Your task to perform on an android device: move an email to a new category in the gmail app Image 0: 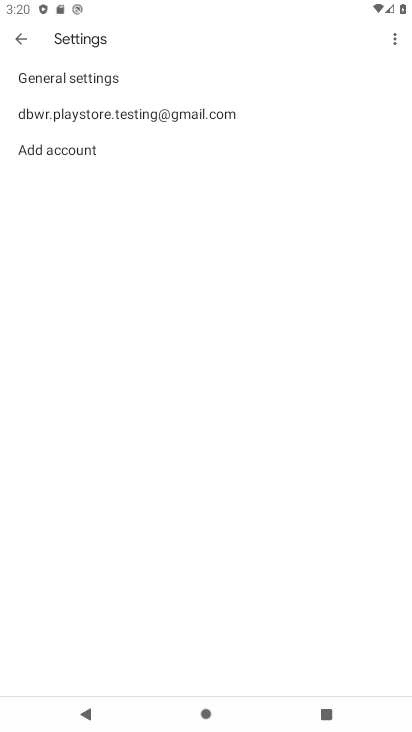
Step 0: click (32, 45)
Your task to perform on an android device: move an email to a new category in the gmail app Image 1: 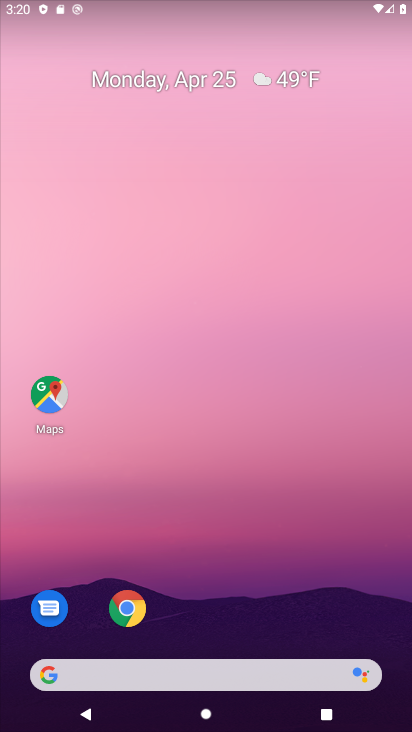
Step 1: drag from (173, 655) to (396, 8)
Your task to perform on an android device: move an email to a new category in the gmail app Image 2: 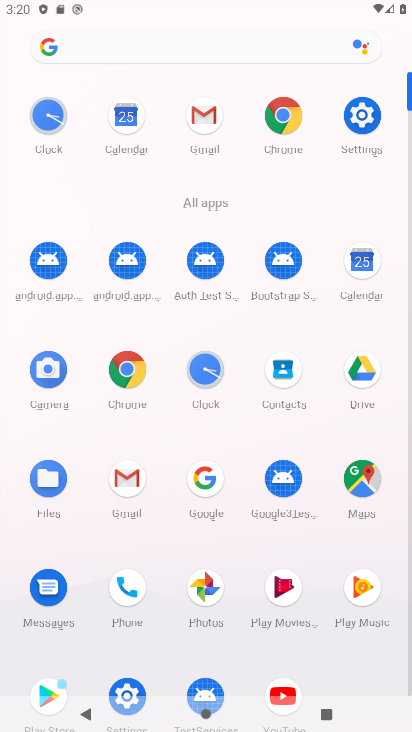
Step 2: click (129, 482)
Your task to perform on an android device: move an email to a new category in the gmail app Image 3: 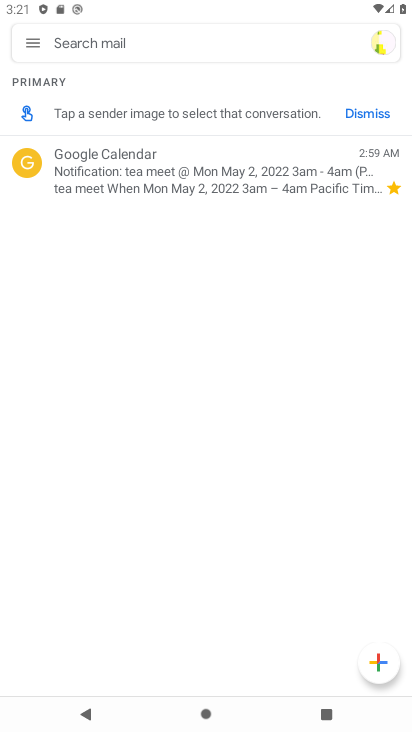
Step 3: click (34, 154)
Your task to perform on an android device: move an email to a new category in the gmail app Image 4: 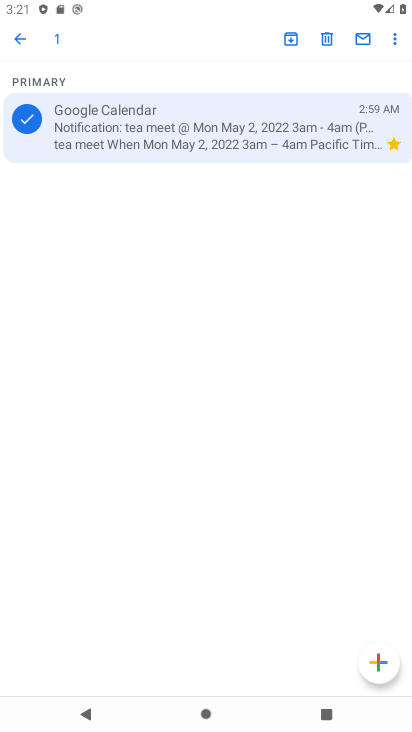
Step 4: click (392, 44)
Your task to perform on an android device: move an email to a new category in the gmail app Image 5: 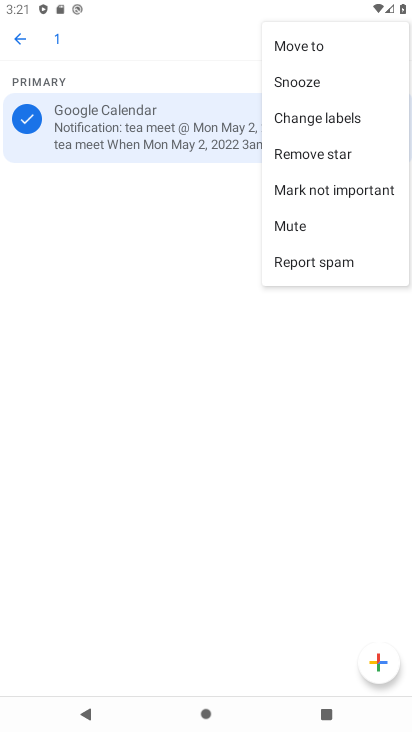
Step 5: click (309, 54)
Your task to perform on an android device: move an email to a new category in the gmail app Image 6: 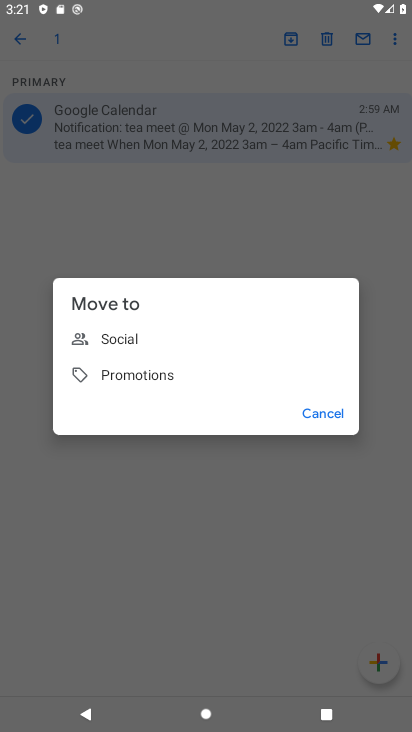
Step 6: click (124, 346)
Your task to perform on an android device: move an email to a new category in the gmail app Image 7: 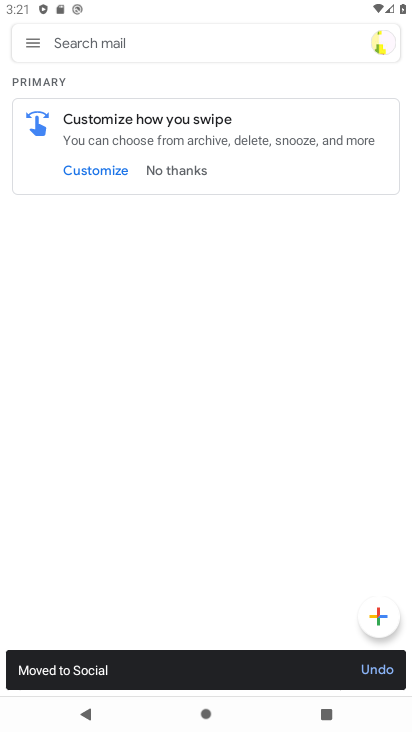
Step 7: task complete